Your task to perform on an android device: change alarm snooze length Image 0: 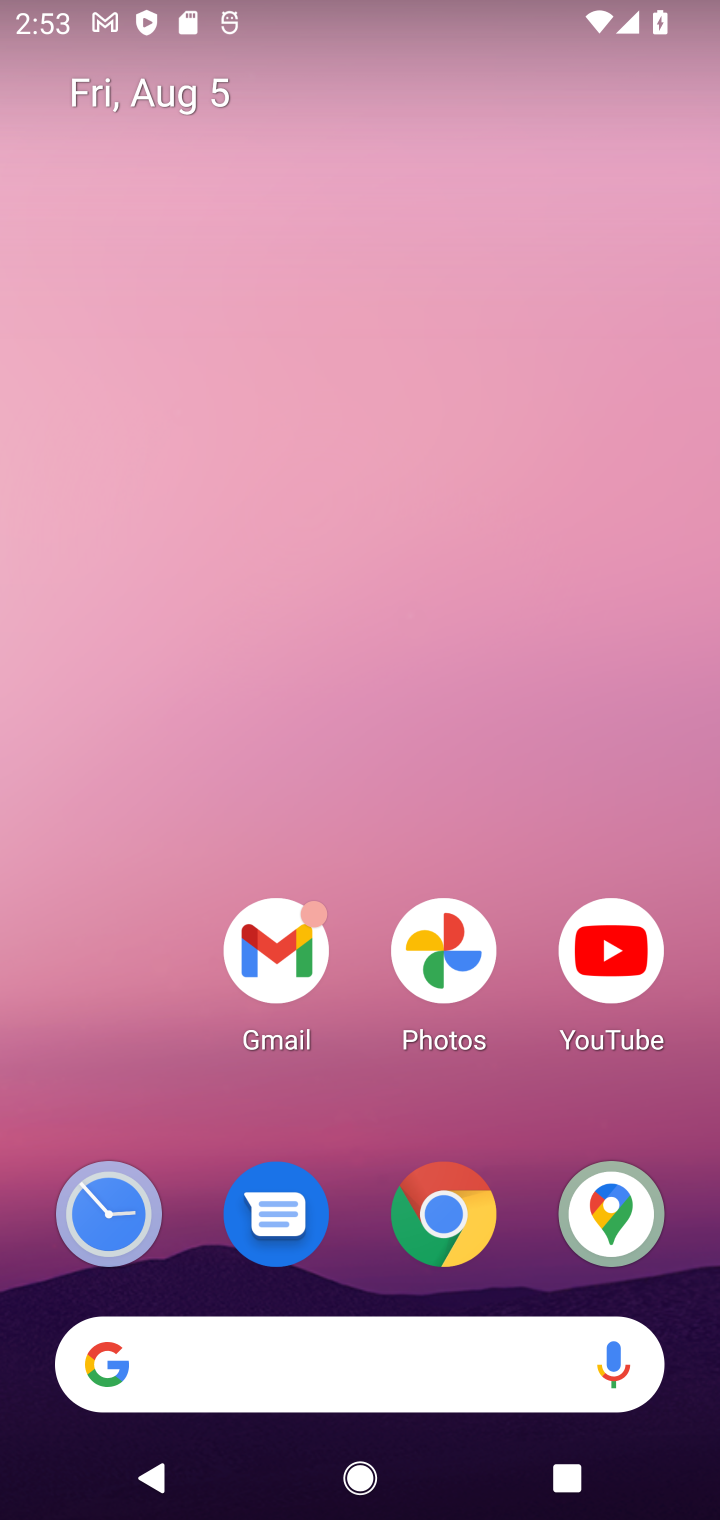
Step 0: click (452, 1239)
Your task to perform on an android device: change alarm snooze length Image 1: 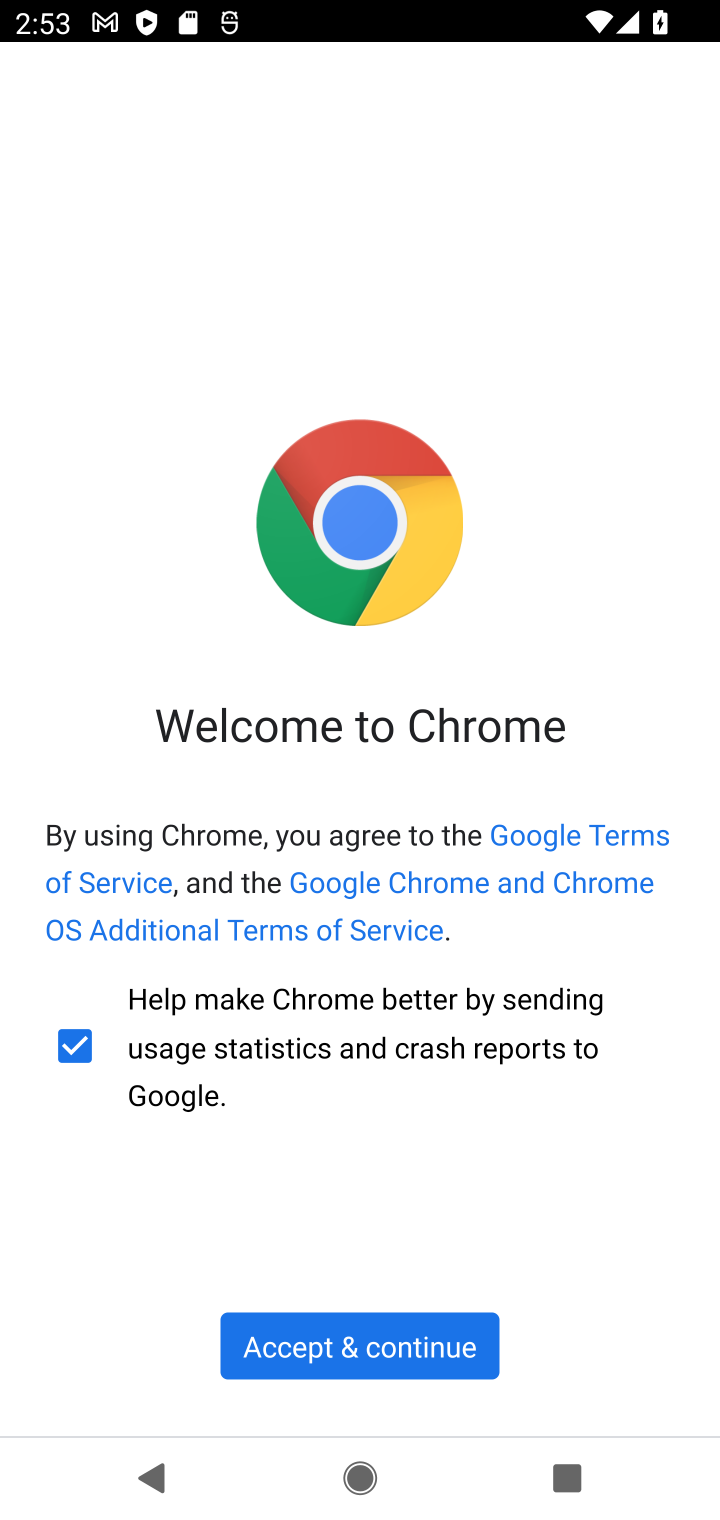
Step 1: click (333, 1355)
Your task to perform on an android device: change alarm snooze length Image 2: 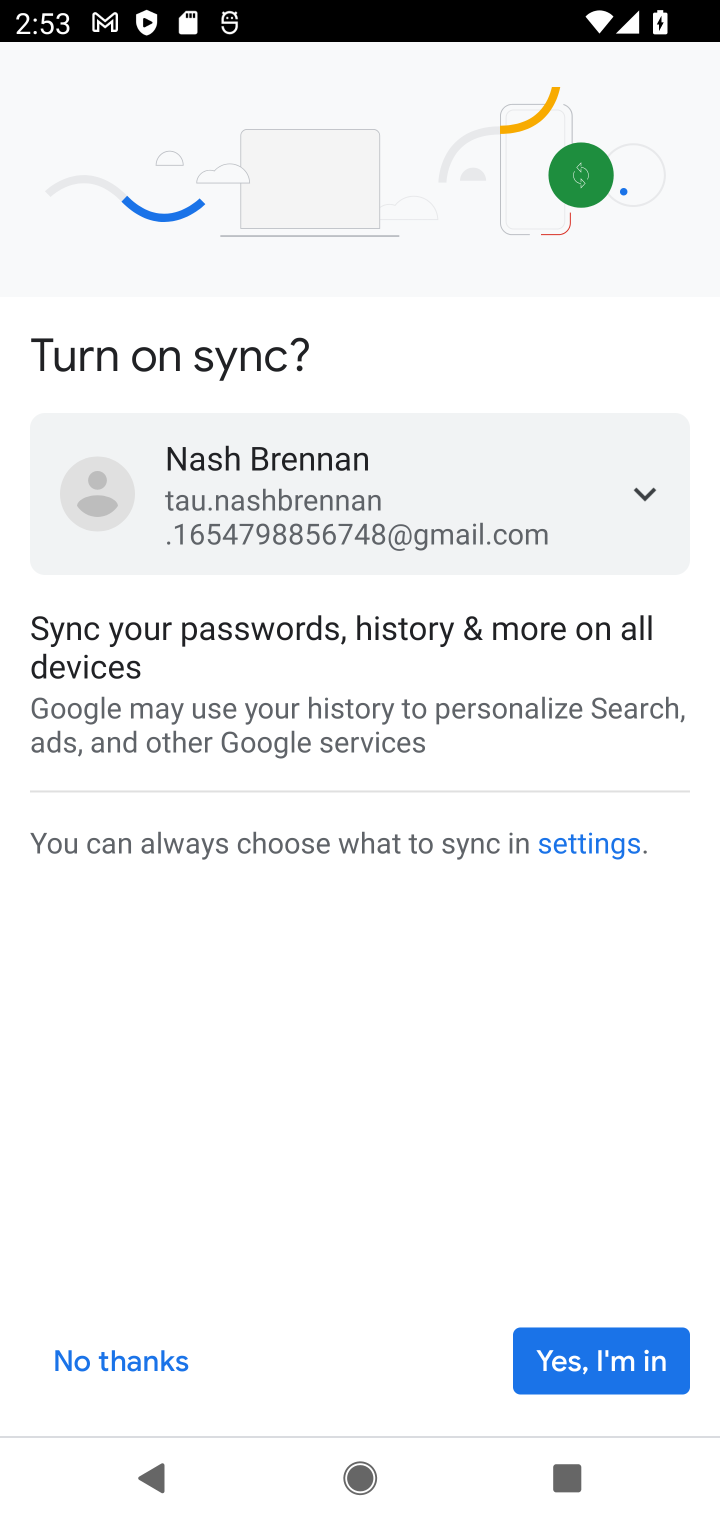
Step 2: click (525, 1359)
Your task to perform on an android device: change alarm snooze length Image 3: 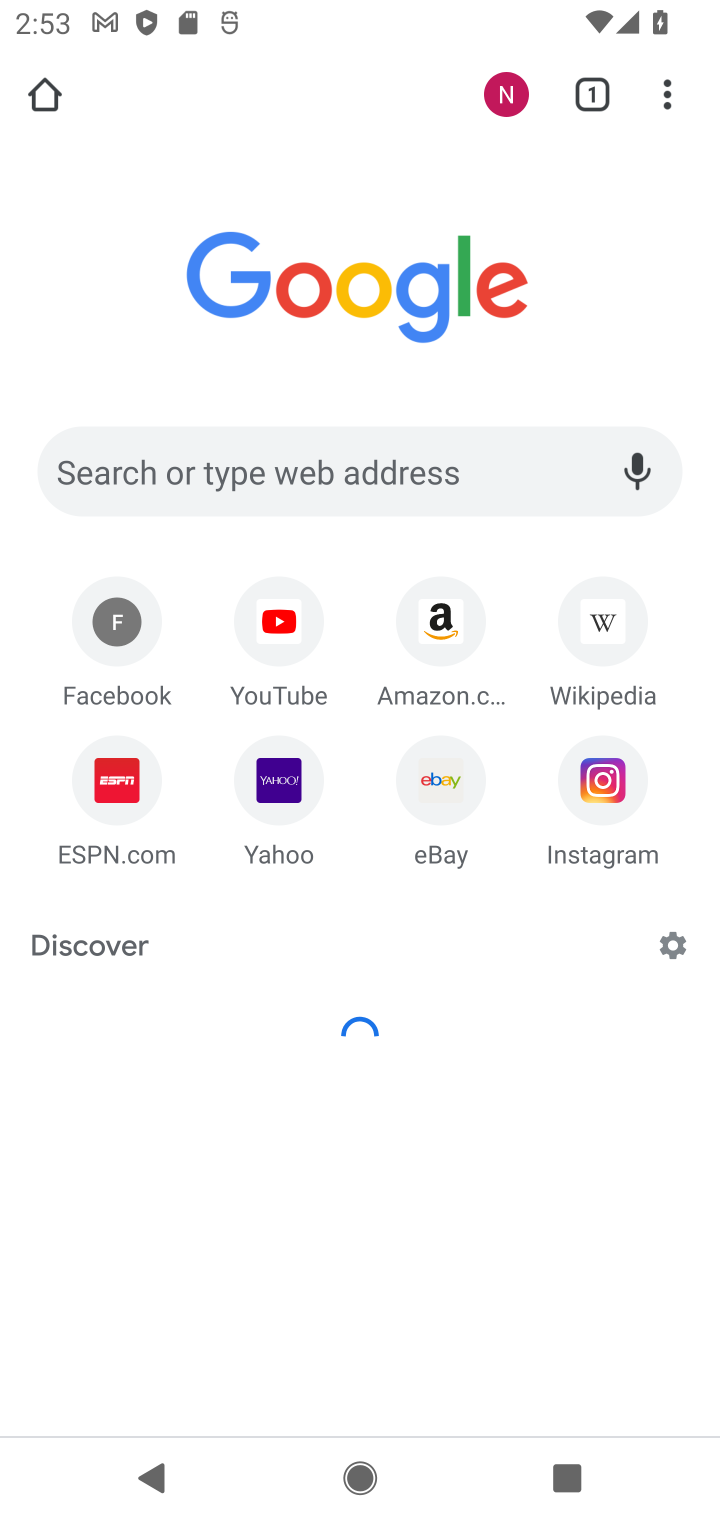
Step 3: press home button
Your task to perform on an android device: change alarm snooze length Image 4: 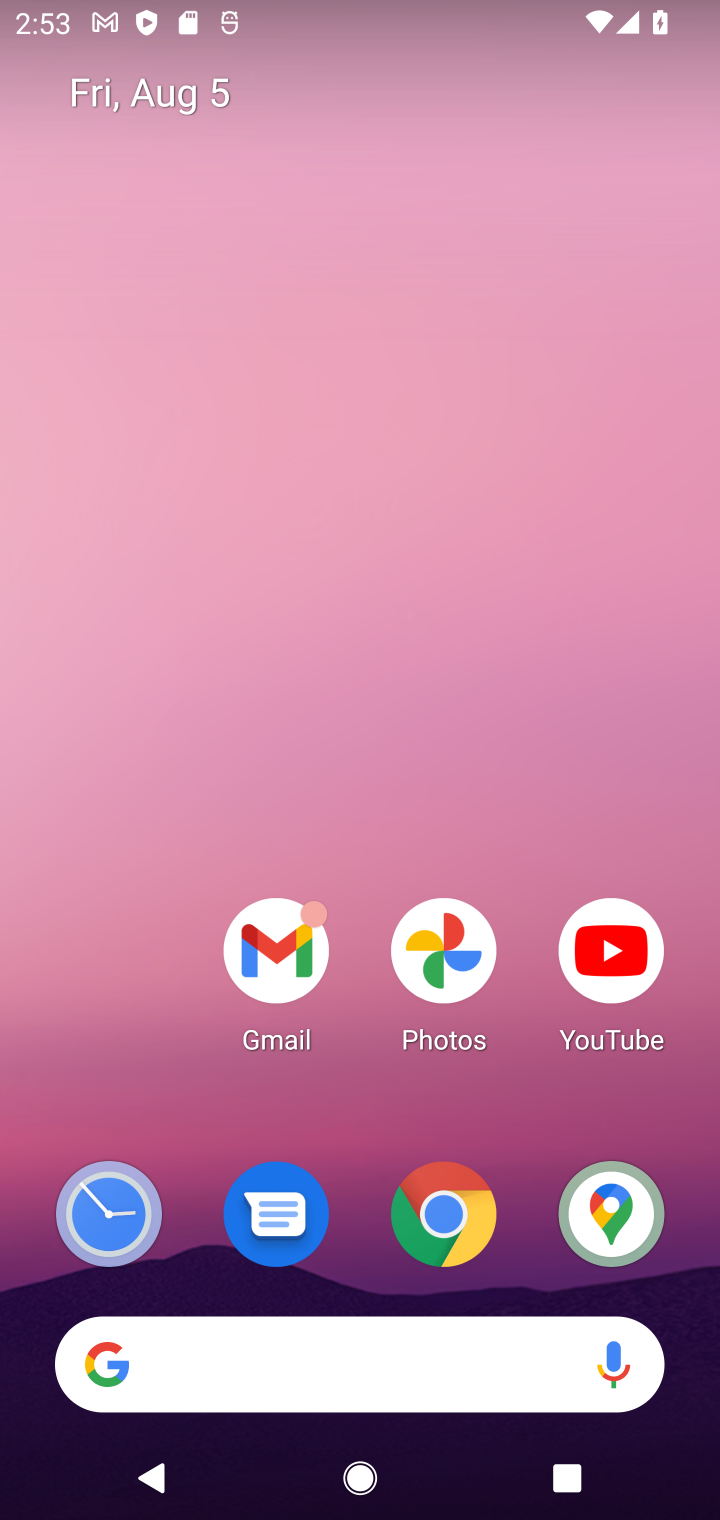
Step 4: drag from (578, 1464) to (552, 208)
Your task to perform on an android device: change alarm snooze length Image 5: 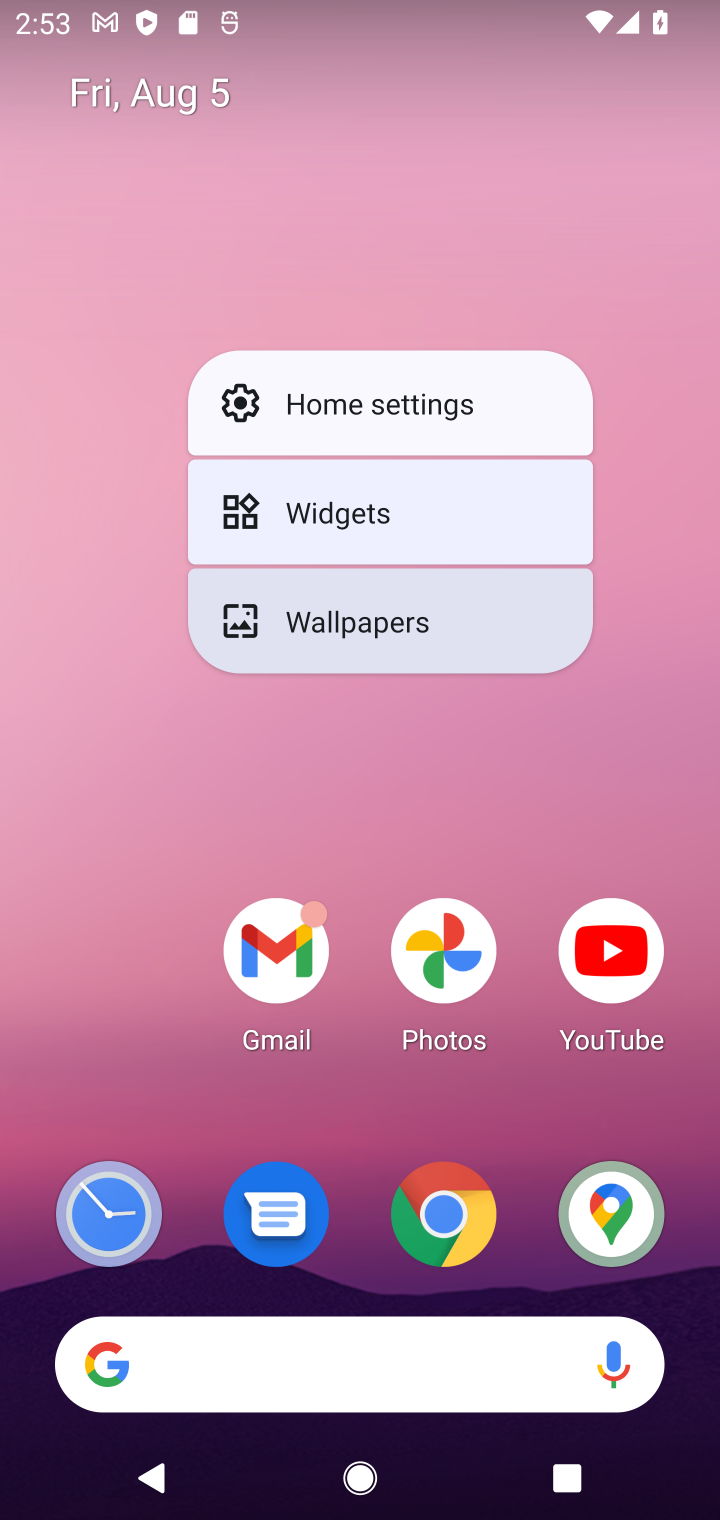
Step 5: drag from (419, 1326) to (331, 19)
Your task to perform on an android device: change alarm snooze length Image 6: 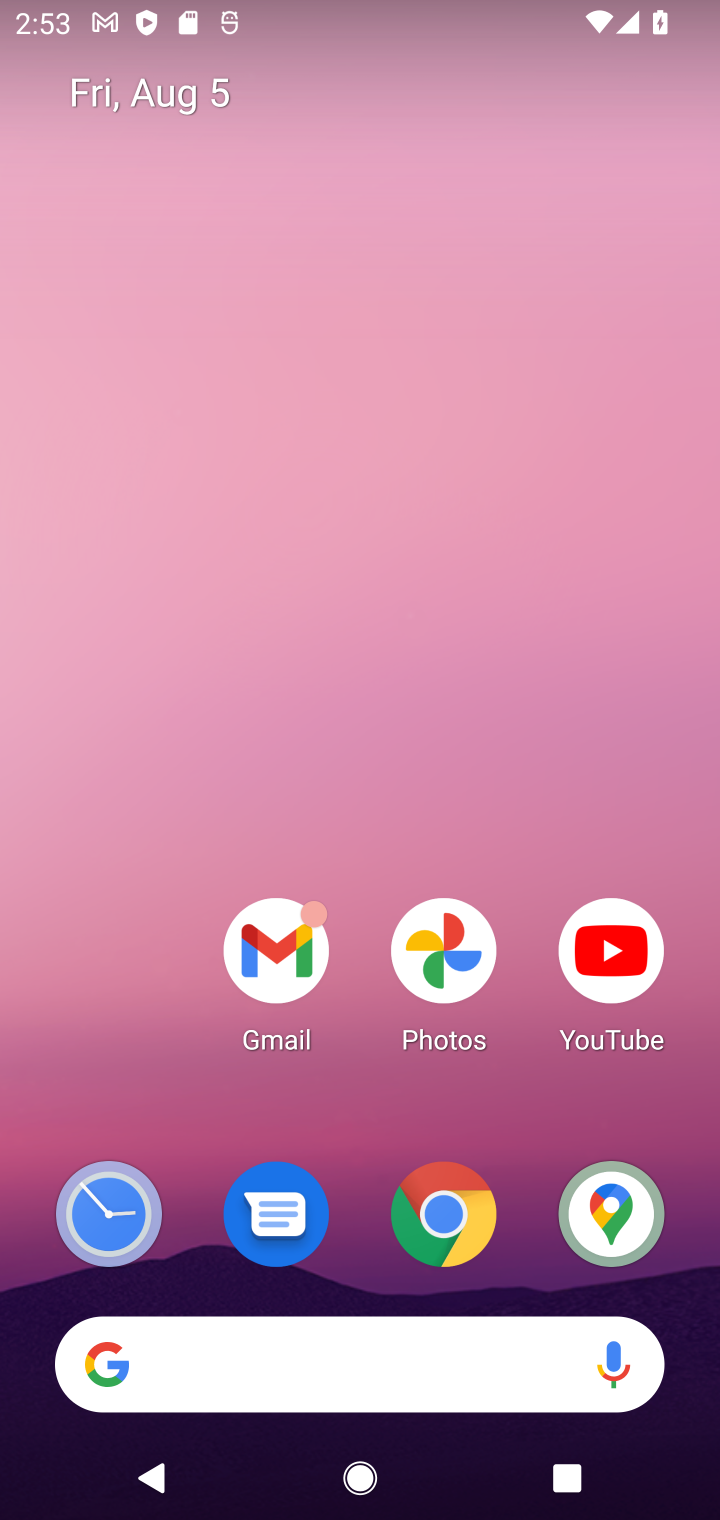
Step 6: drag from (429, 1259) to (349, 88)
Your task to perform on an android device: change alarm snooze length Image 7: 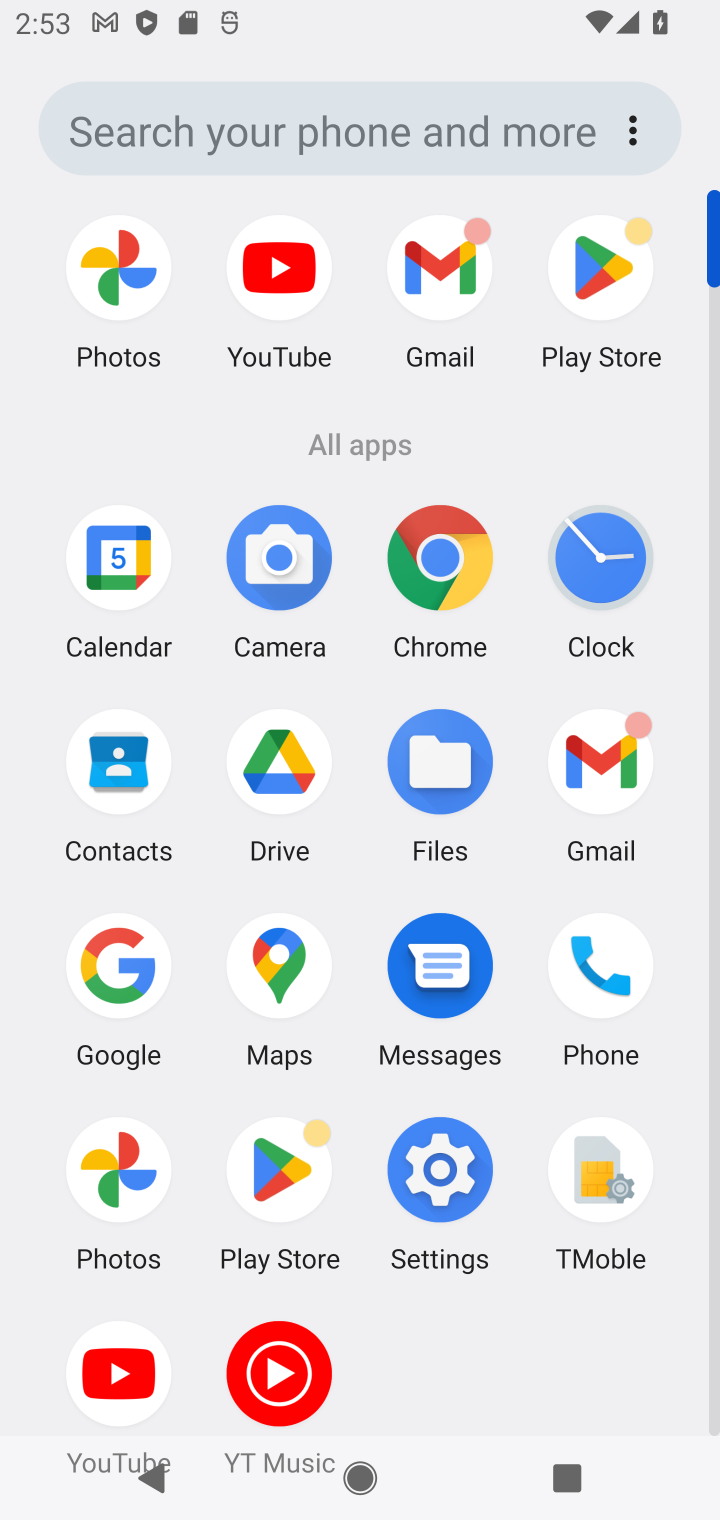
Step 7: click (595, 570)
Your task to perform on an android device: change alarm snooze length Image 8: 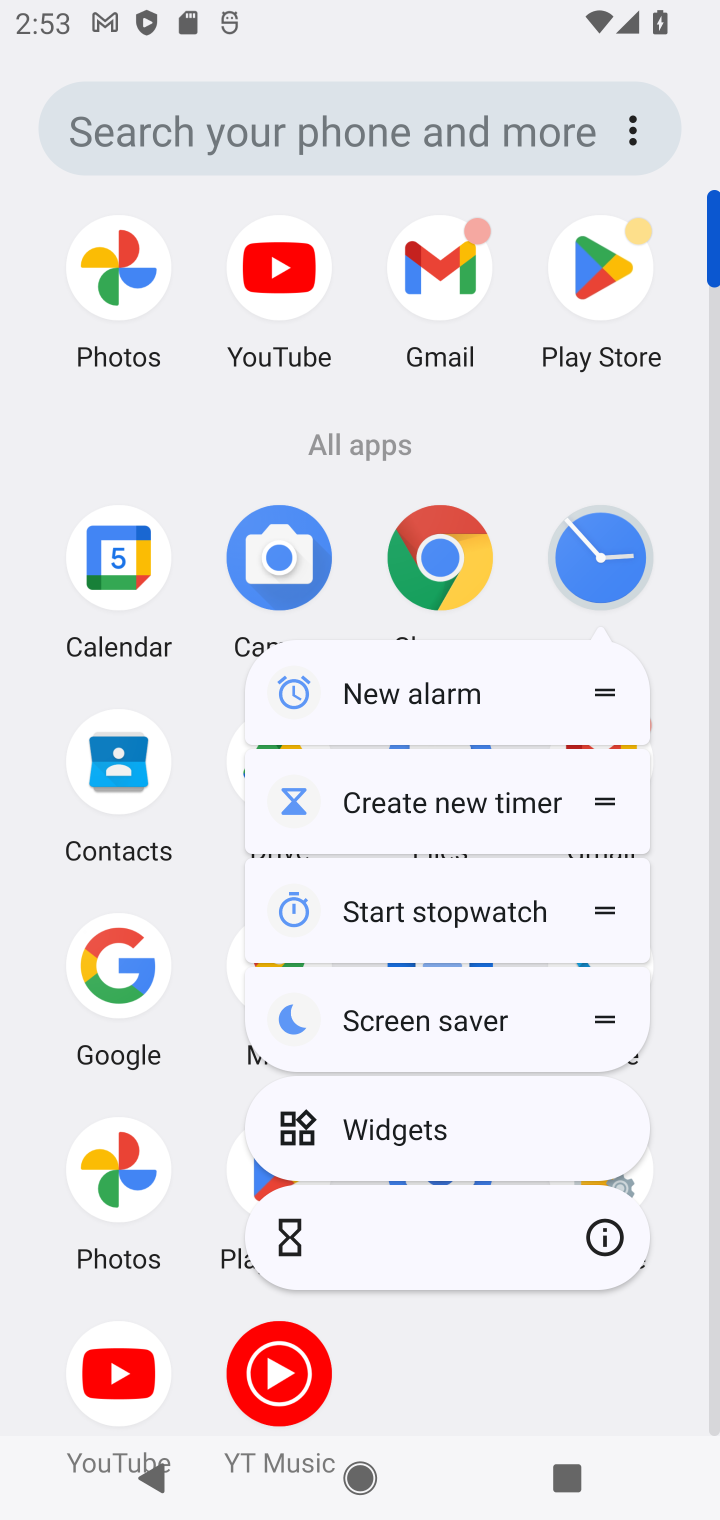
Step 8: click (595, 568)
Your task to perform on an android device: change alarm snooze length Image 9: 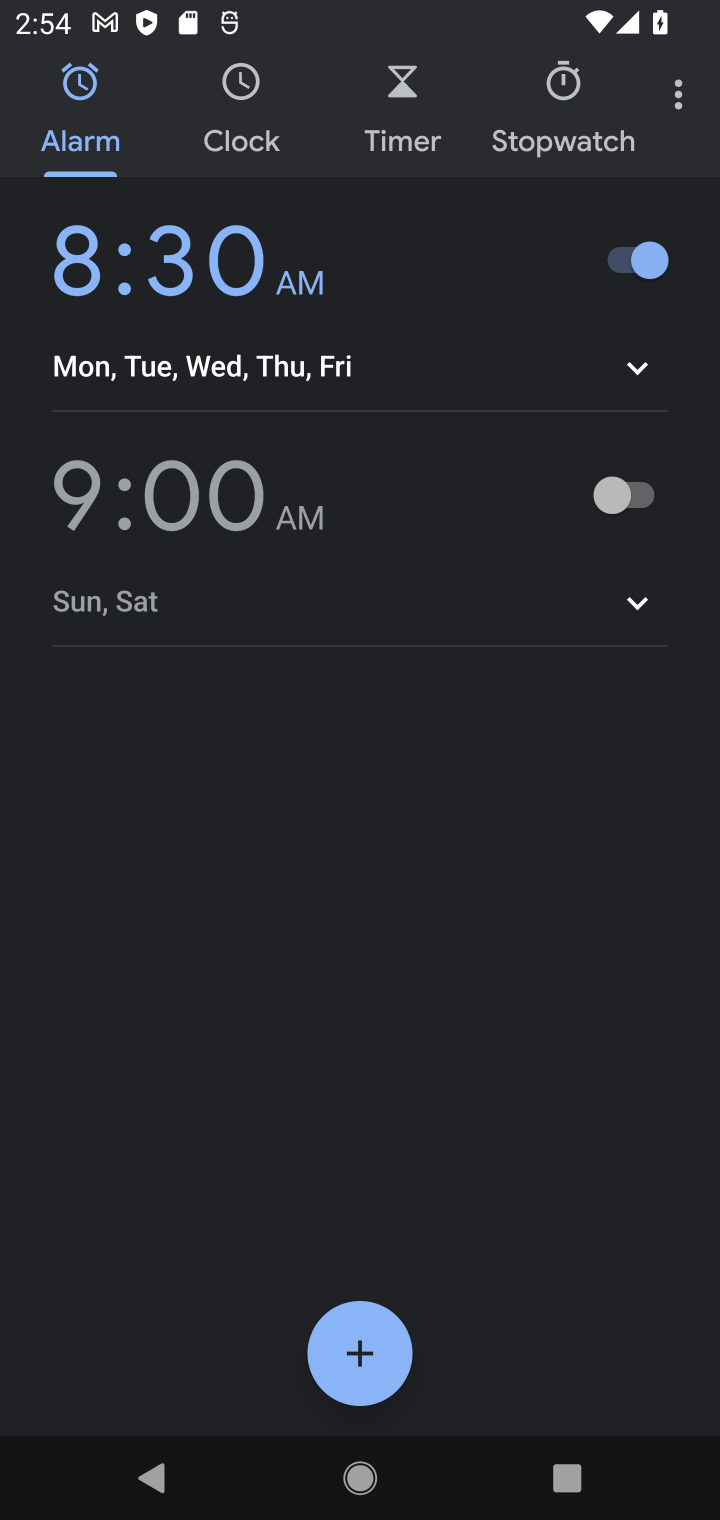
Step 9: click (673, 106)
Your task to perform on an android device: change alarm snooze length Image 10: 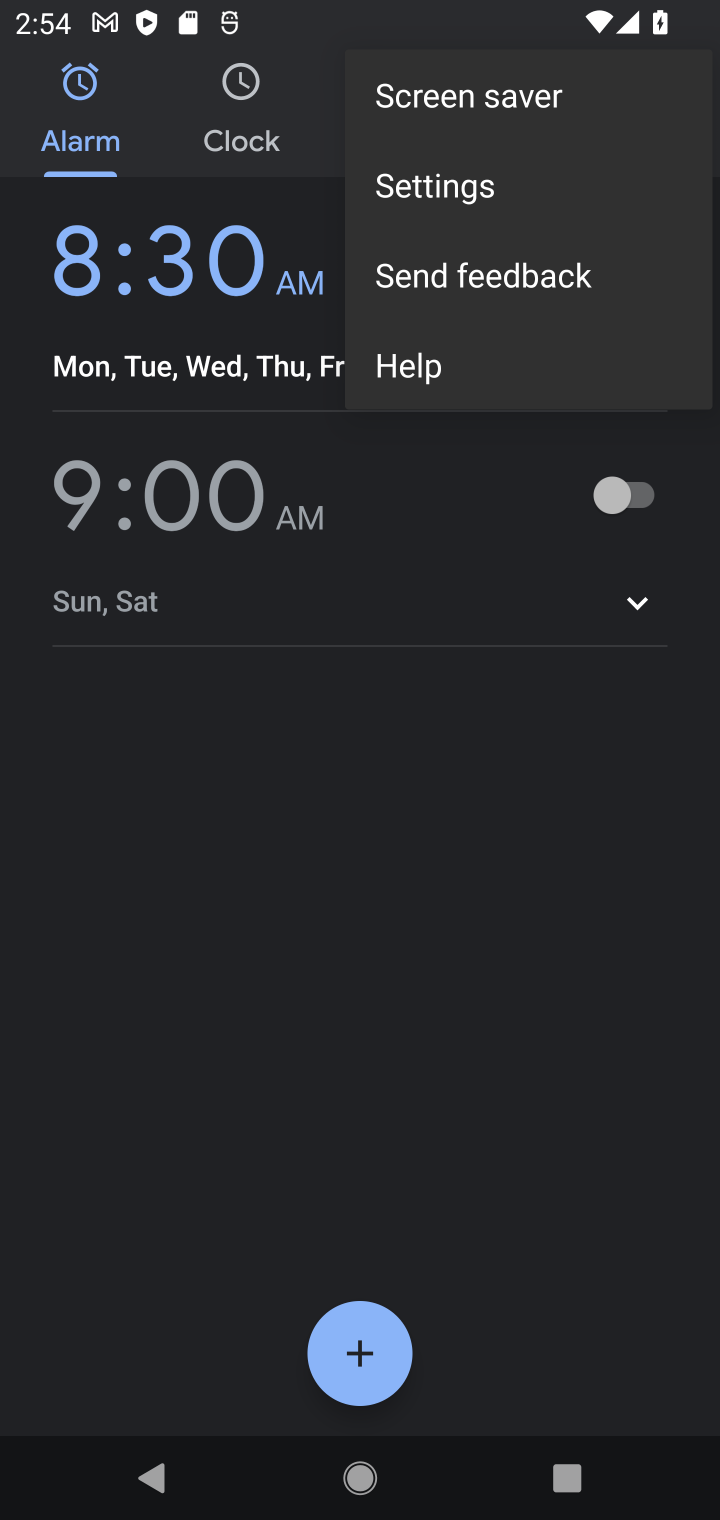
Step 10: click (596, 194)
Your task to perform on an android device: change alarm snooze length Image 11: 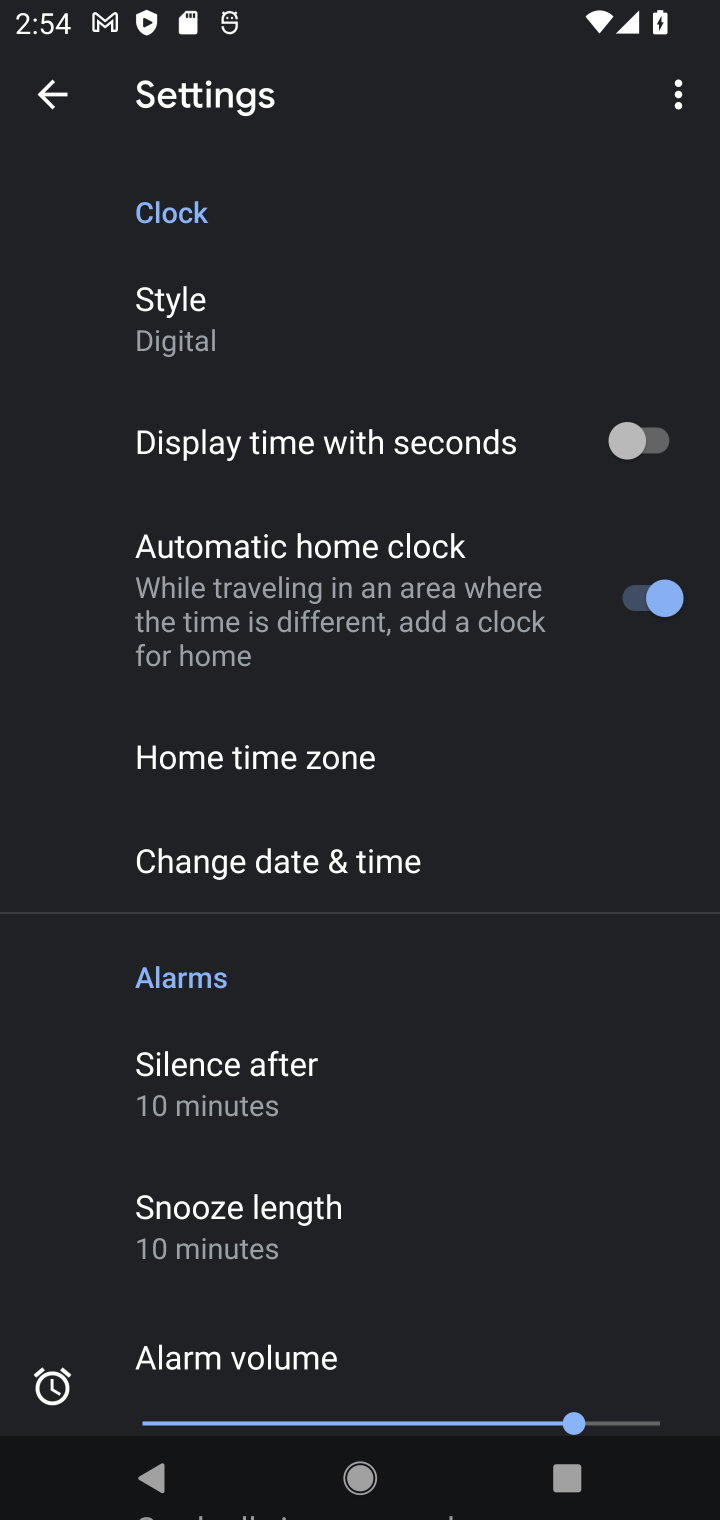
Step 11: drag from (590, 1030) to (618, 719)
Your task to perform on an android device: change alarm snooze length Image 12: 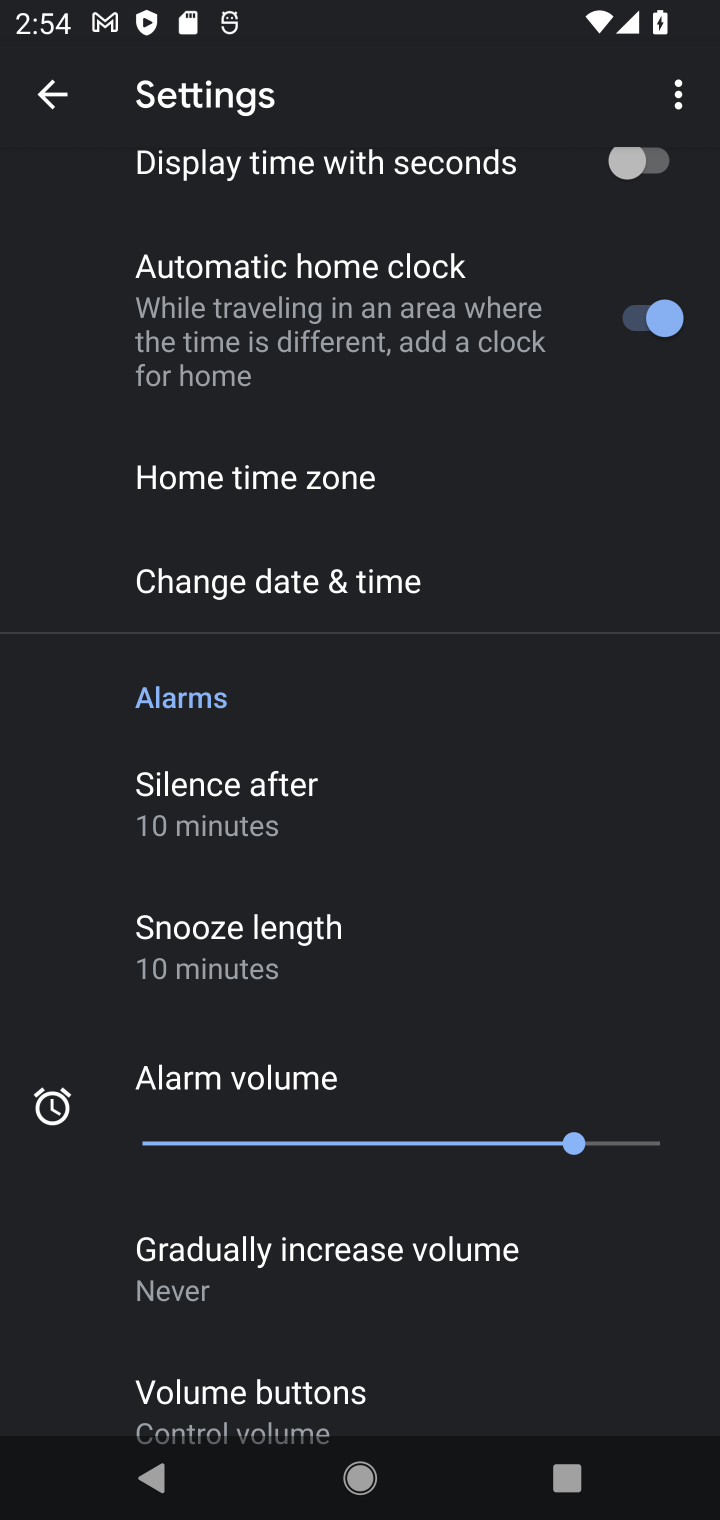
Step 12: click (463, 955)
Your task to perform on an android device: change alarm snooze length Image 13: 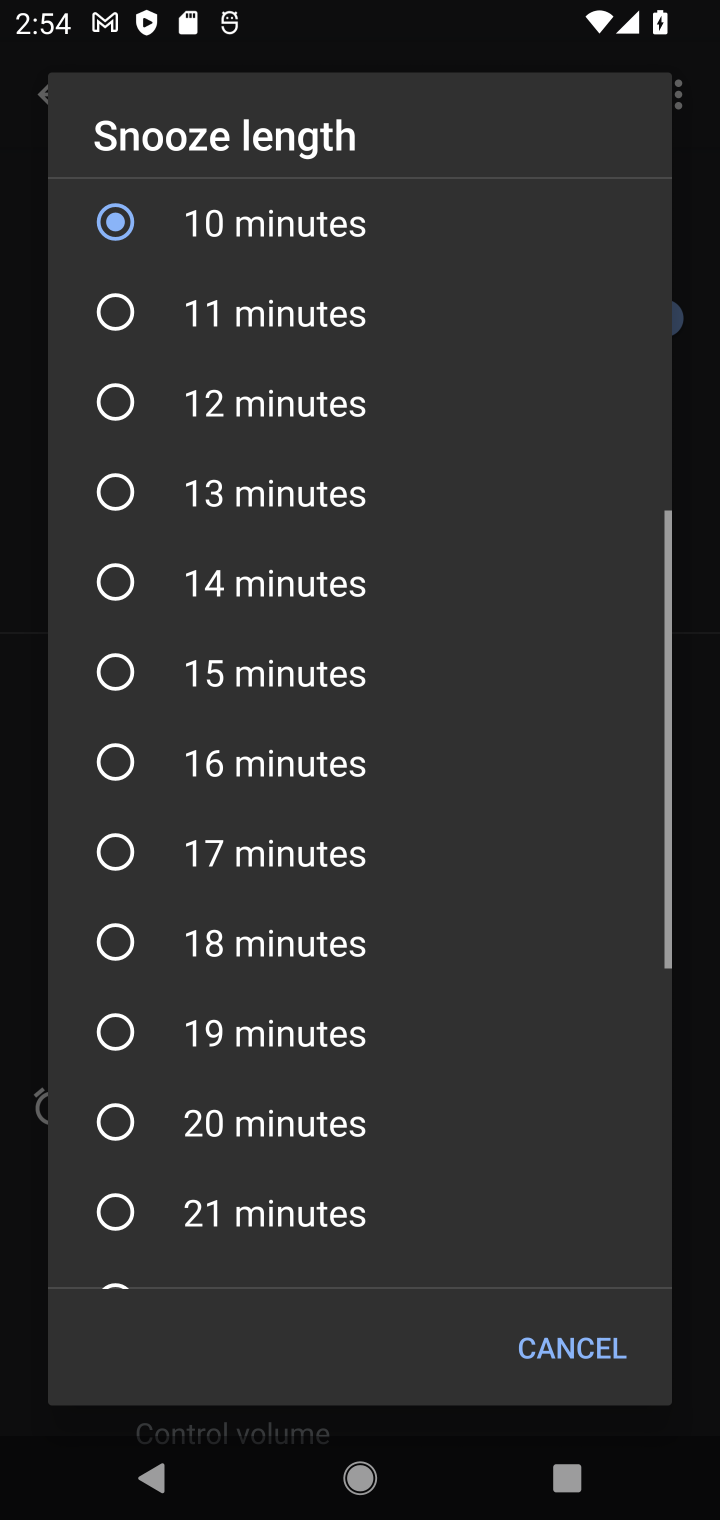
Step 13: click (314, 303)
Your task to perform on an android device: change alarm snooze length Image 14: 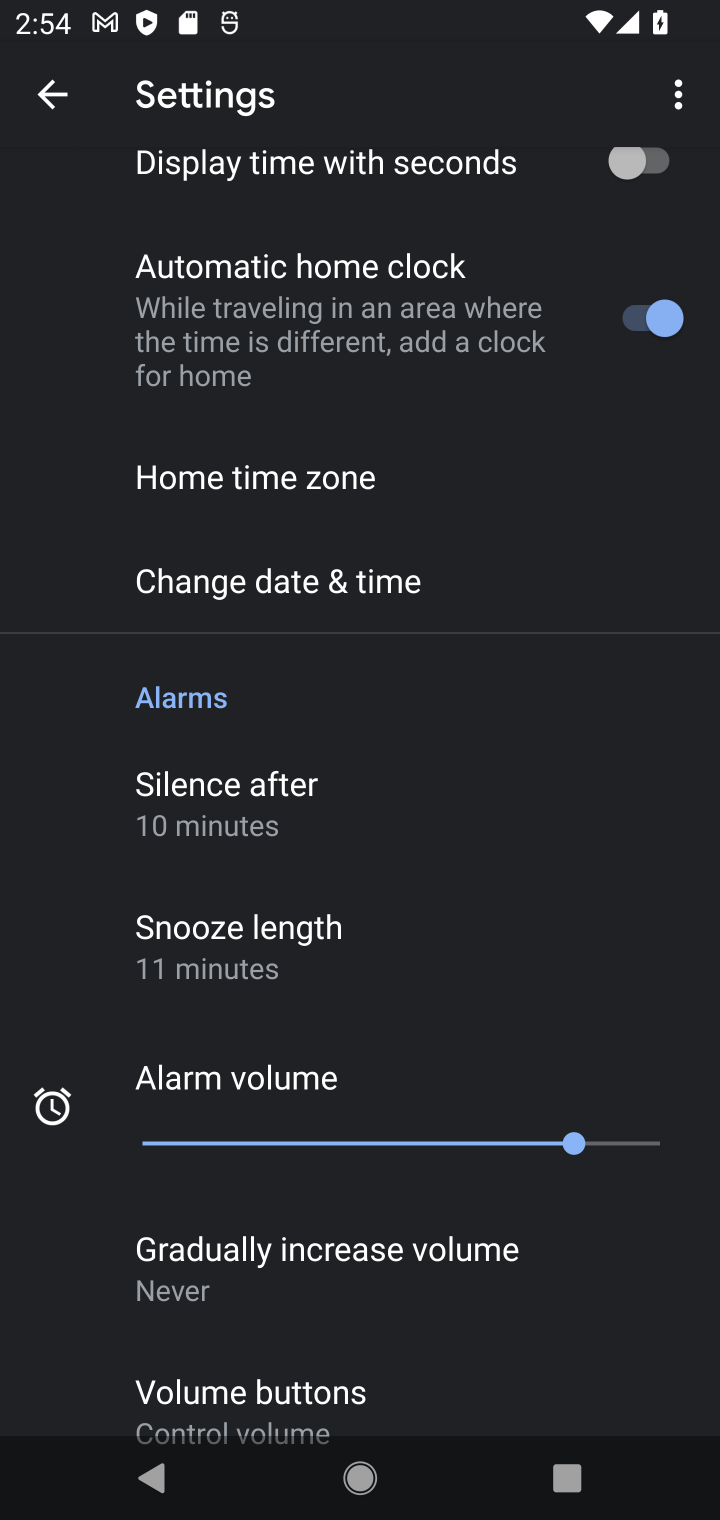
Step 14: task complete